Your task to perform on an android device: change notification settings in the gmail app Image 0: 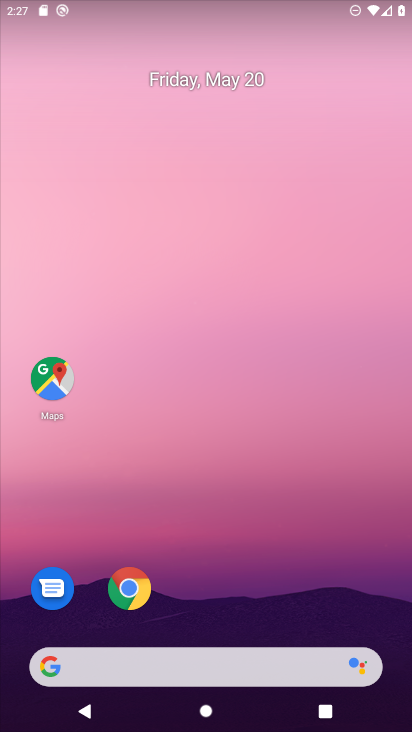
Step 0: drag from (380, 620) to (351, 98)
Your task to perform on an android device: change notification settings in the gmail app Image 1: 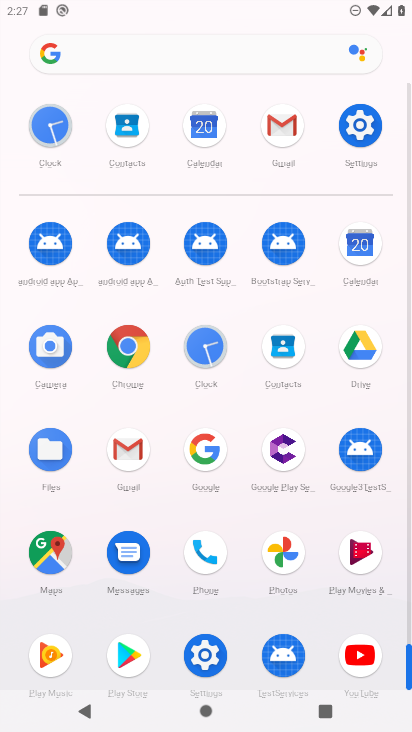
Step 1: click (204, 656)
Your task to perform on an android device: change notification settings in the gmail app Image 2: 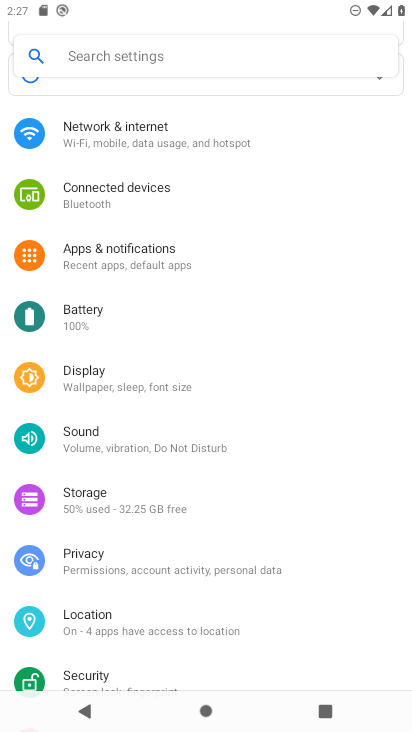
Step 2: press home button
Your task to perform on an android device: change notification settings in the gmail app Image 3: 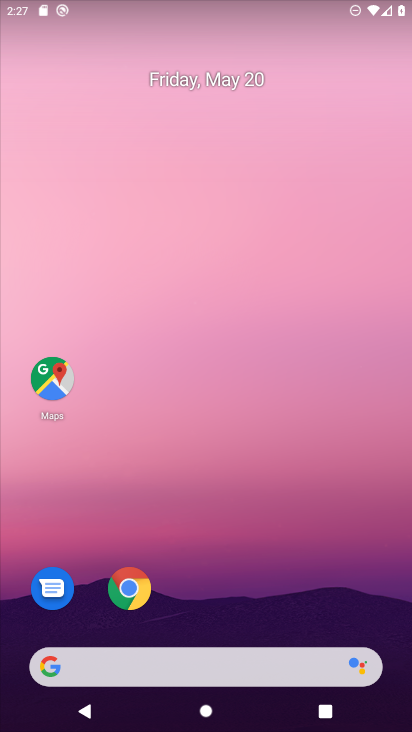
Step 3: drag from (377, 603) to (324, 38)
Your task to perform on an android device: change notification settings in the gmail app Image 4: 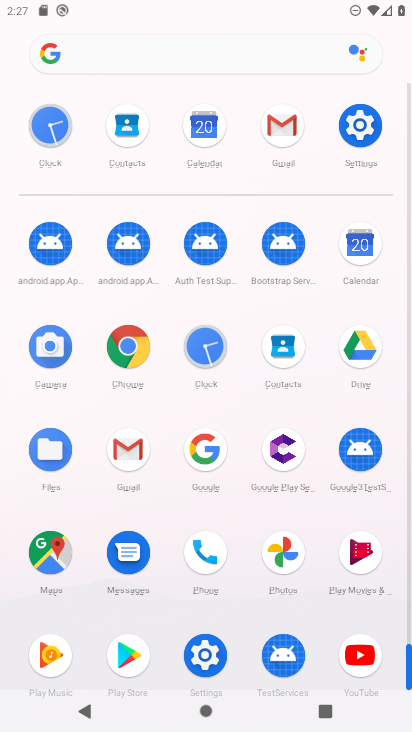
Step 4: click (127, 450)
Your task to perform on an android device: change notification settings in the gmail app Image 5: 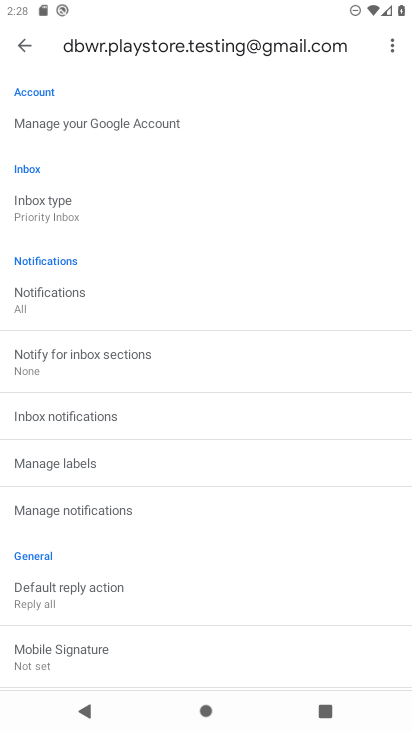
Step 5: click (77, 509)
Your task to perform on an android device: change notification settings in the gmail app Image 6: 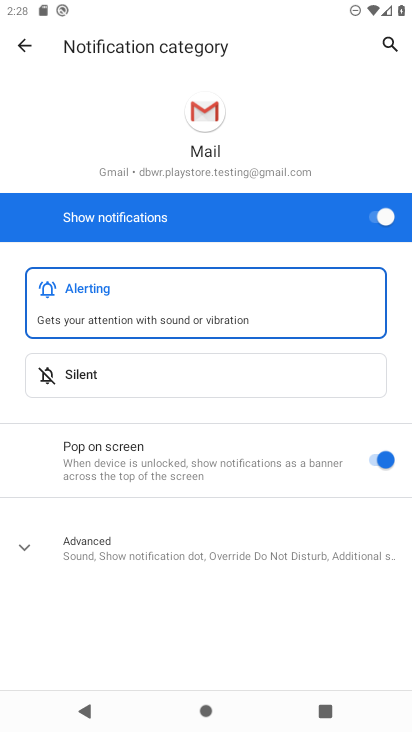
Step 6: click (374, 214)
Your task to perform on an android device: change notification settings in the gmail app Image 7: 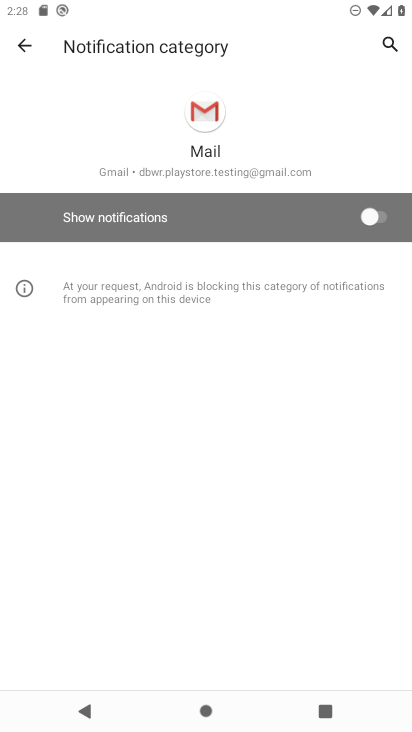
Step 7: task complete